Your task to perform on an android device: Open the stopwatch Image 0: 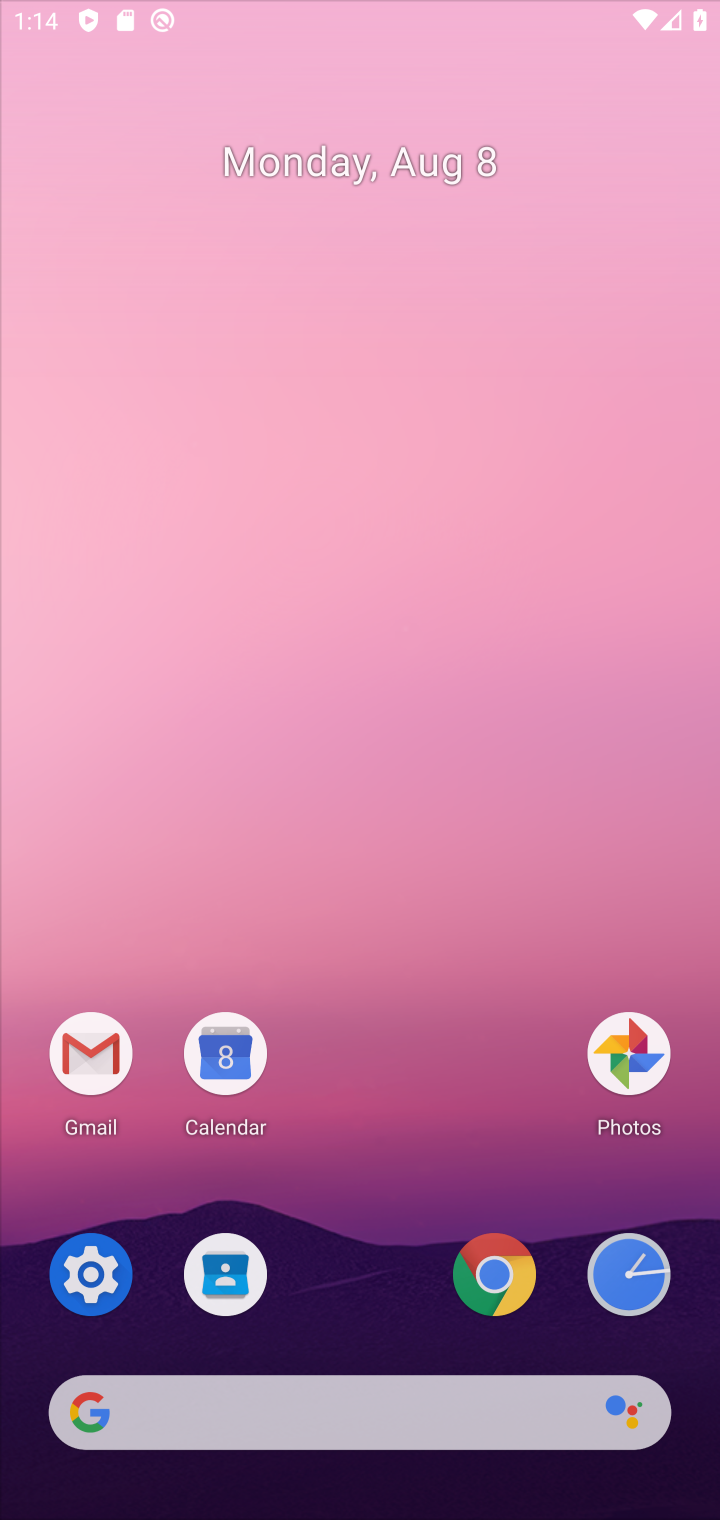
Step 0: press home button
Your task to perform on an android device: Open the stopwatch Image 1: 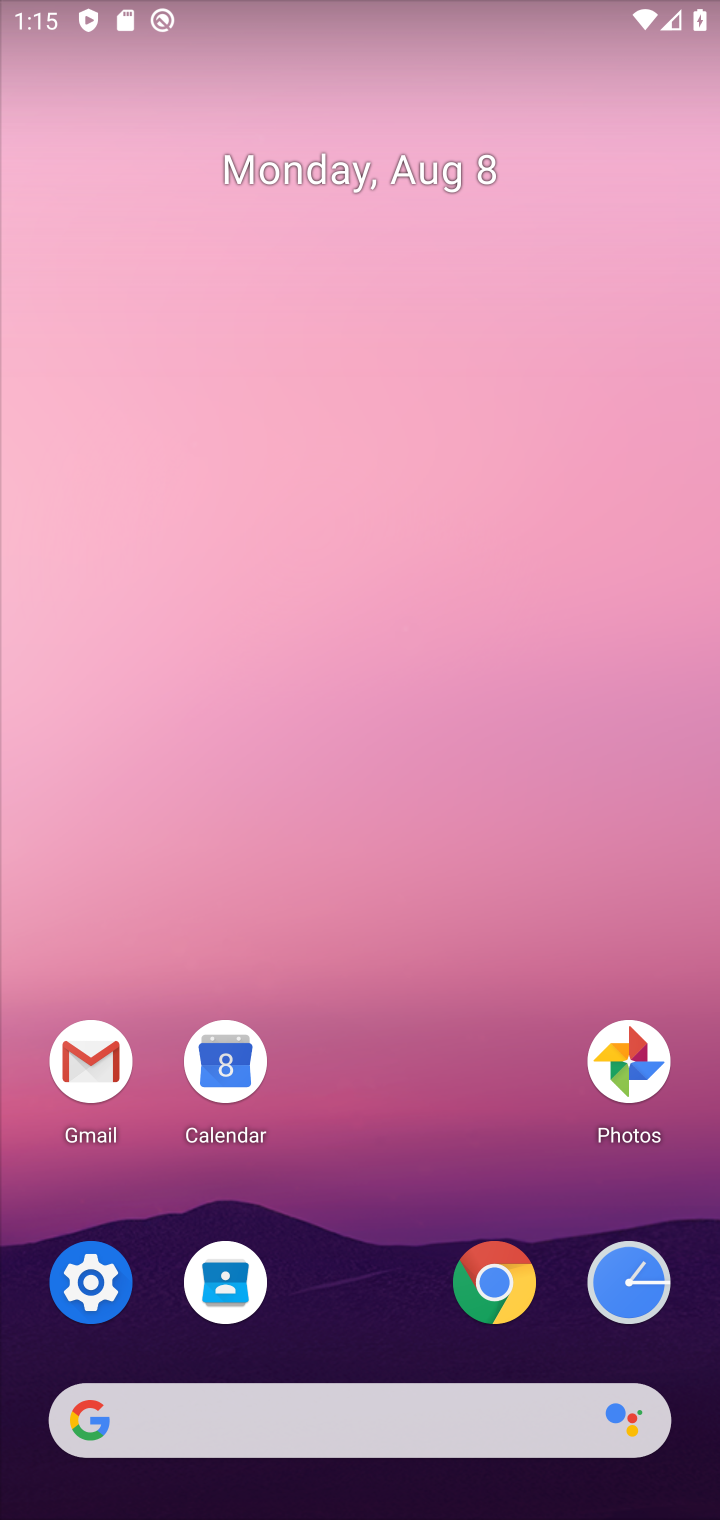
Step 1: click (653, 1269)
Your task to perform on an android device: Open the stopwatch Image 2: 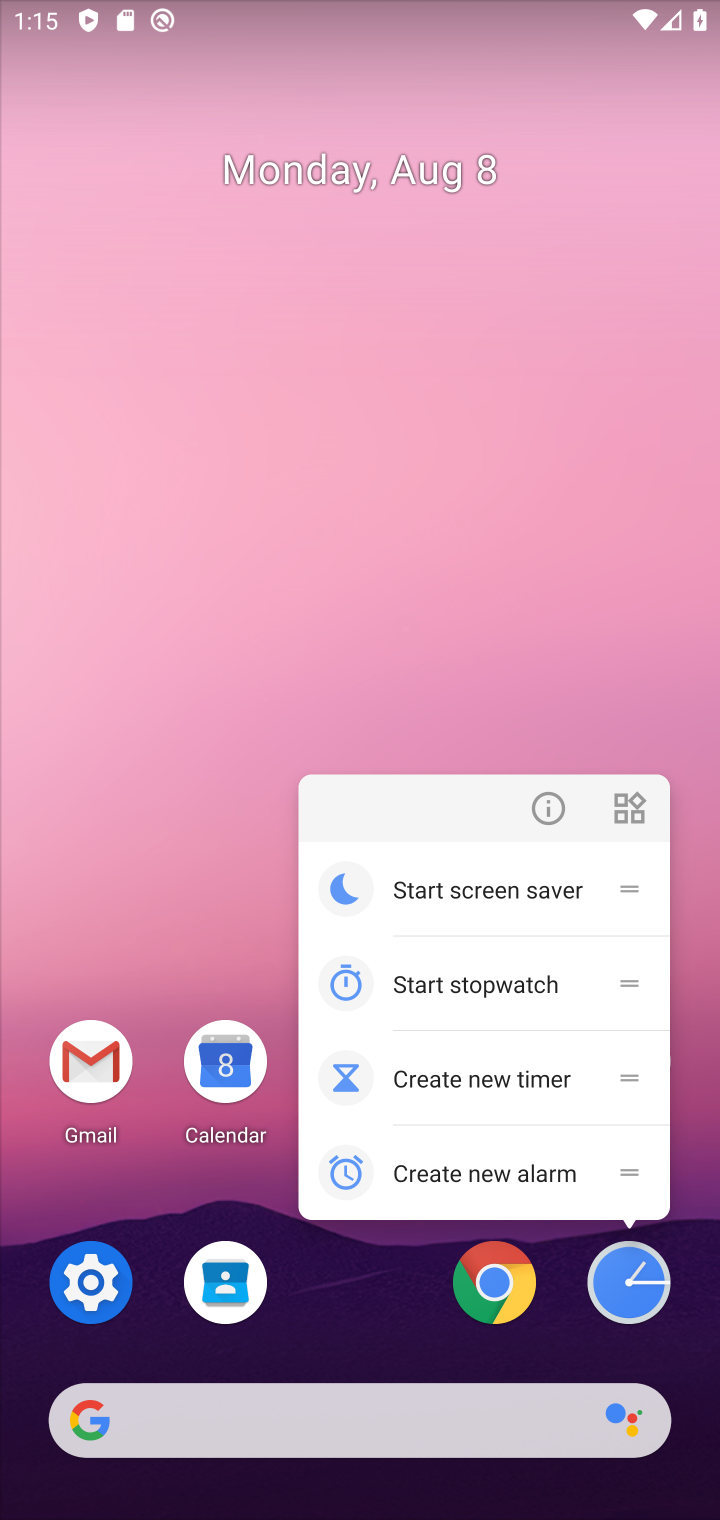
Step 2: click (653, 1284)
Your task to perform on an android device: Open the stopwatch Image 3: 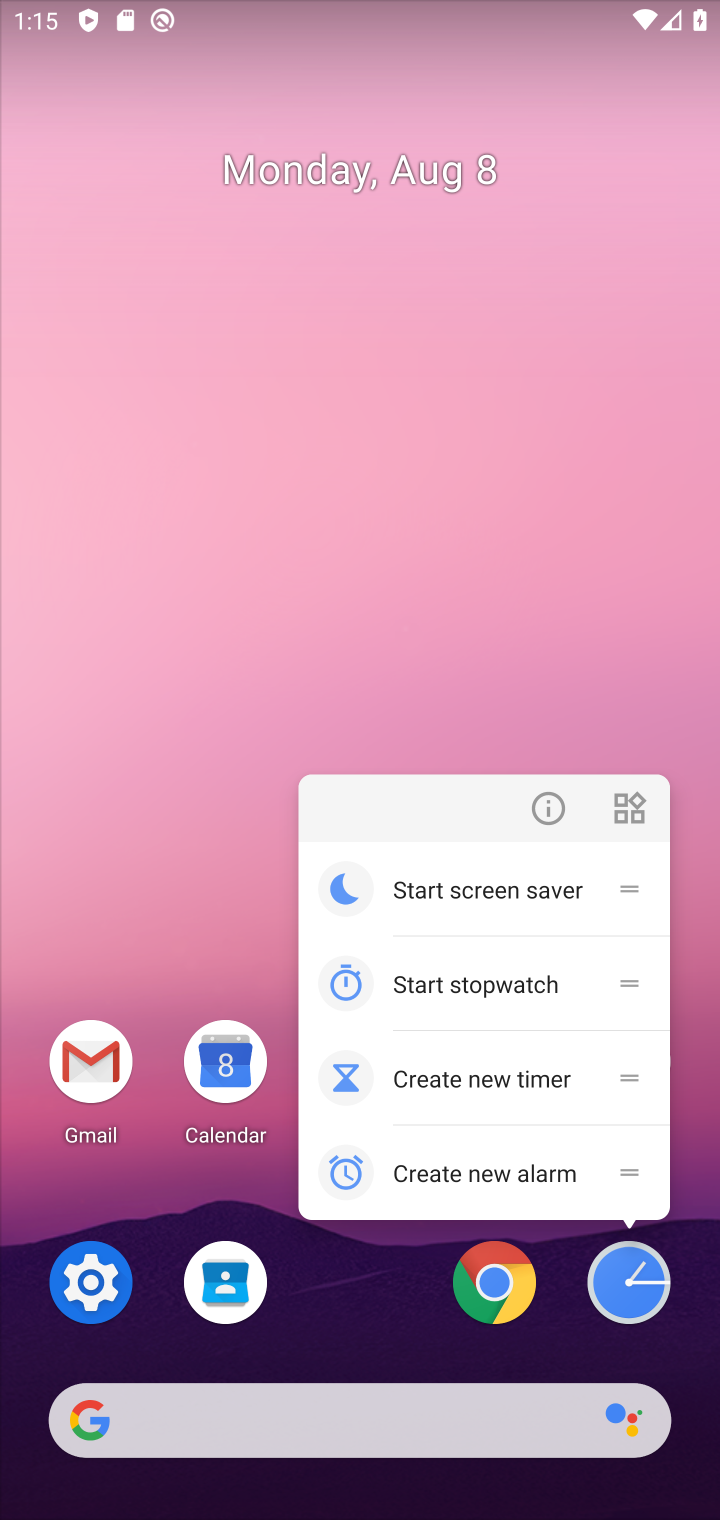
Step 3: click (616, 1292)
Your task to perform on an android device: Open the stopwatch Image 4: 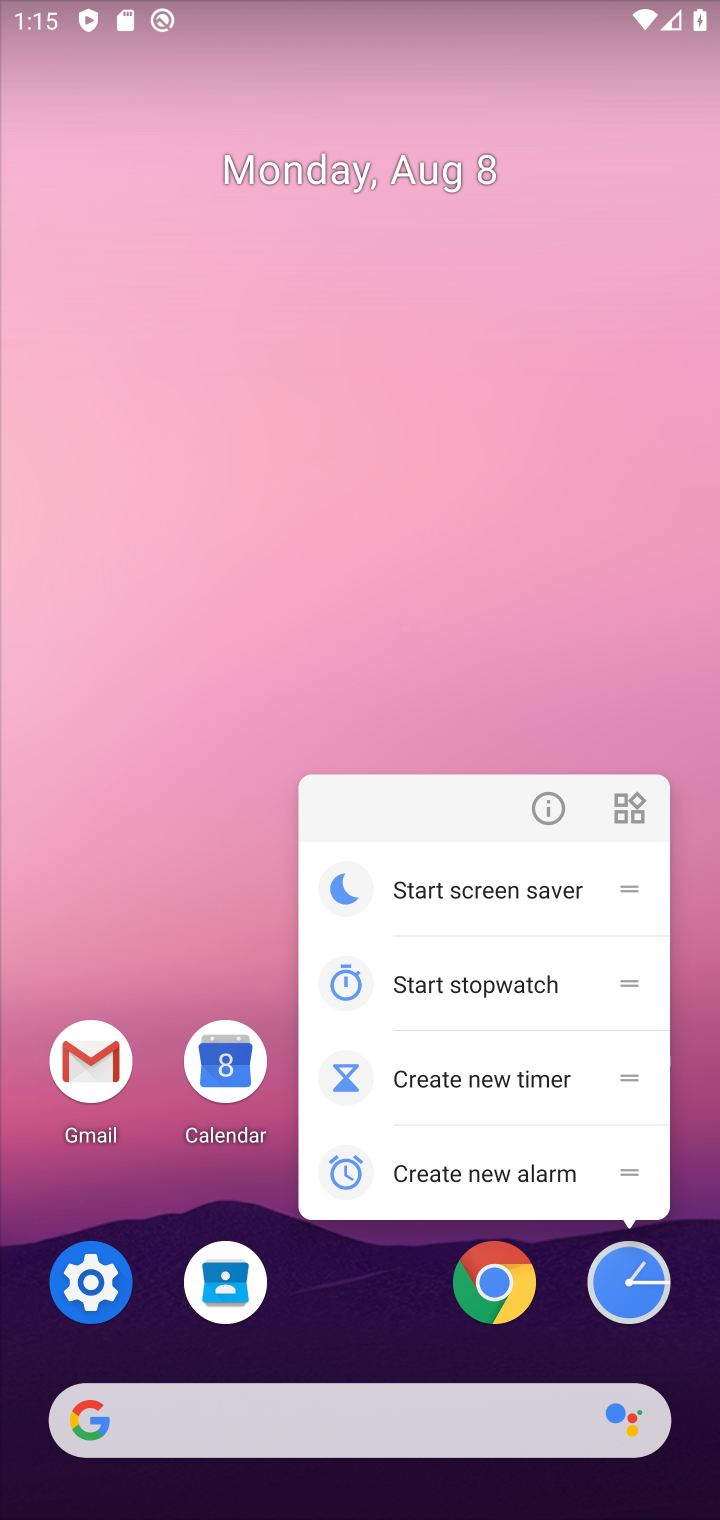
Step 4: click (621, 1309)
Your task to perform on an android device: Open the stopwatch Image 5: 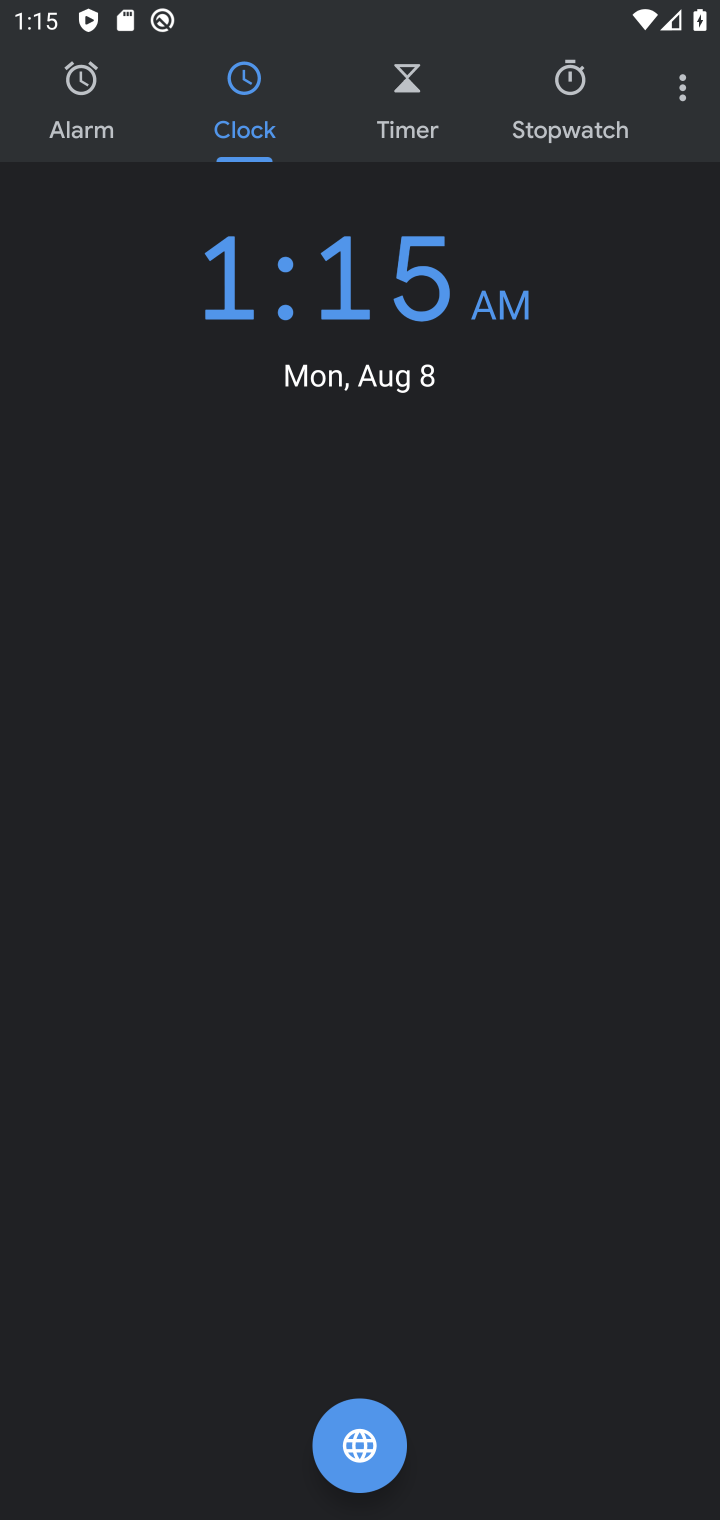
Step 5: click (595, 92)
Your task to perform on an android device: Open the stopwatch Image 6: 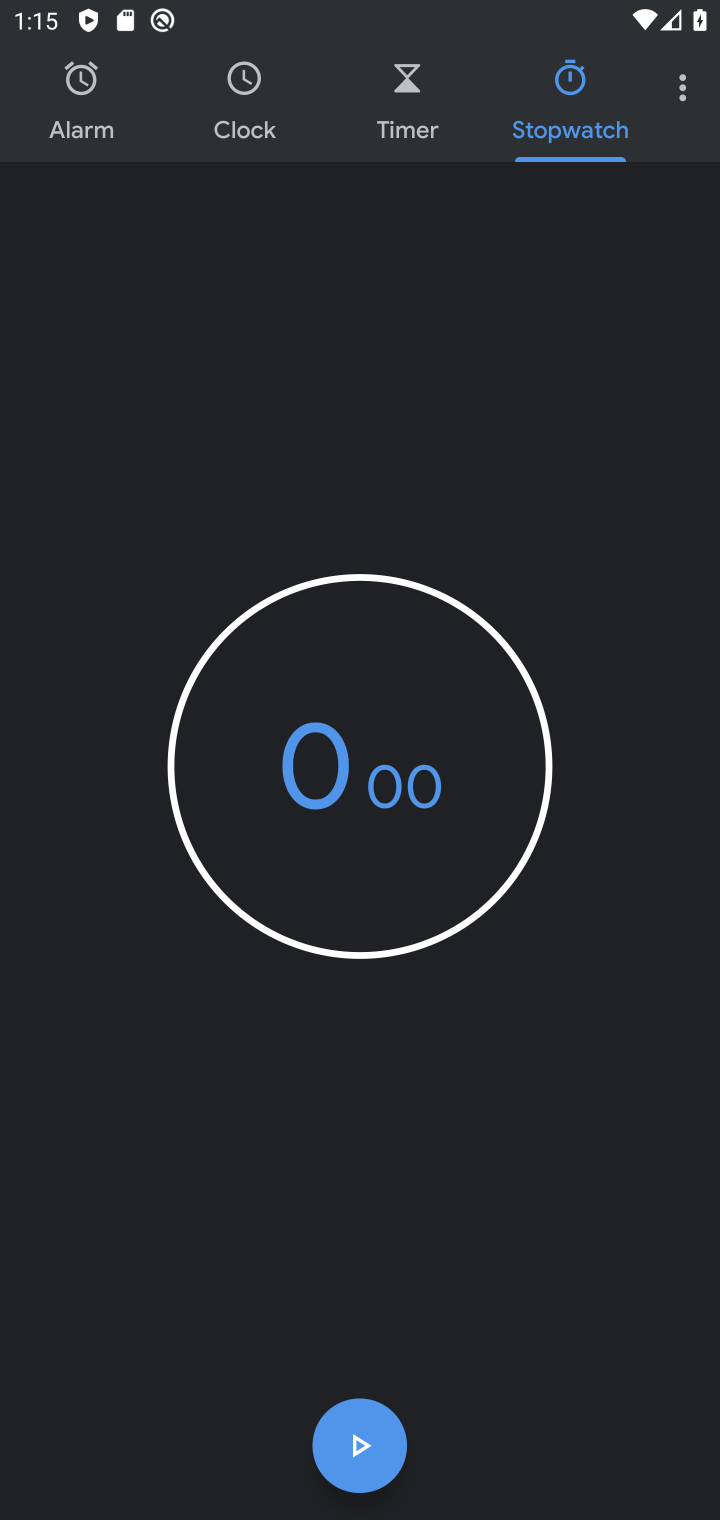
Step 6: task complete